Your task to perform on an android device: check battery use Image 0: 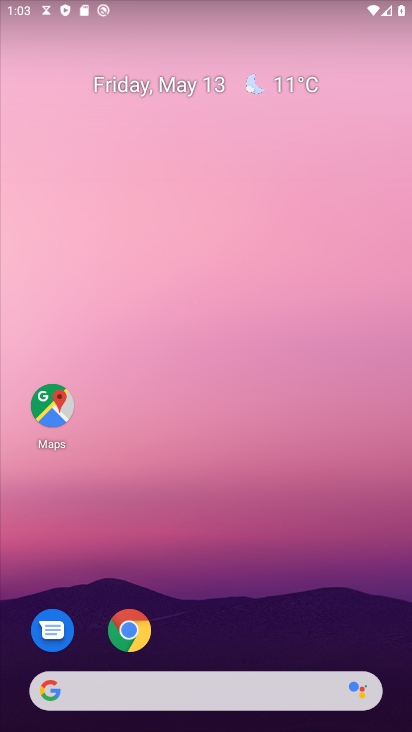
Step 0: drag from (233, 690) to (245, 186)
Your task to perform on an android device: check battery use Image 1: 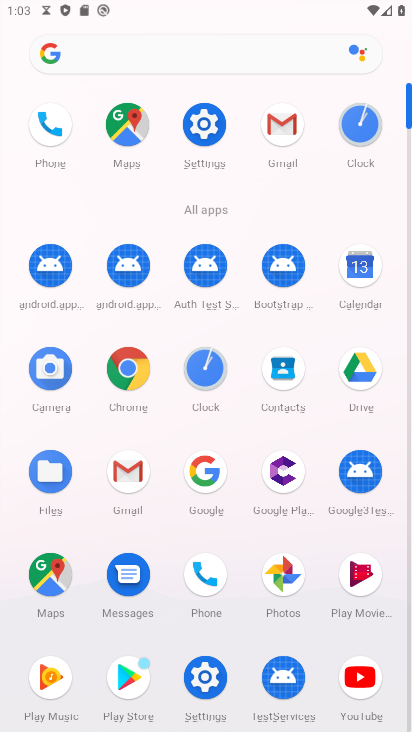
Step 1: click (213, 139)
Your task to perform on an android device: check battery use Image 2: 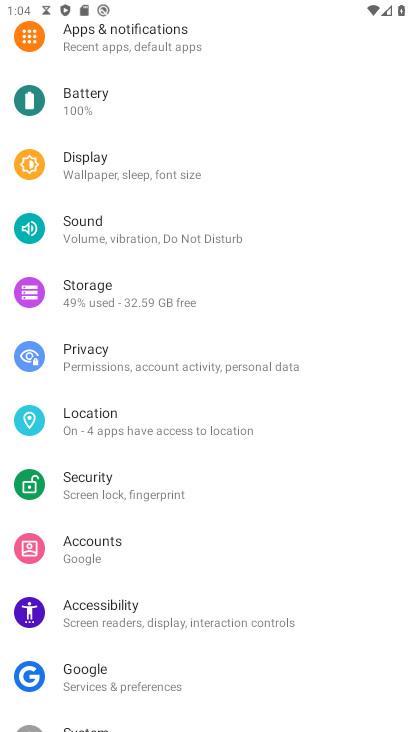
Step 2: click (77, 103)
Your task to perform on an android device: check battery use Image 3: 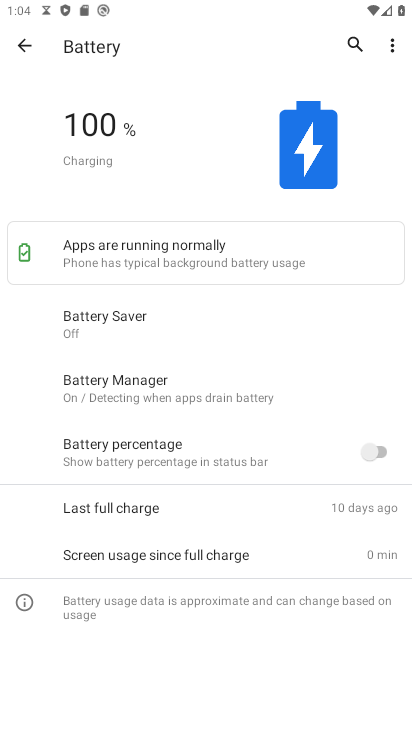
Step 3: click (380, 41)
Your task to perform on an android device: check battery use Image 4: 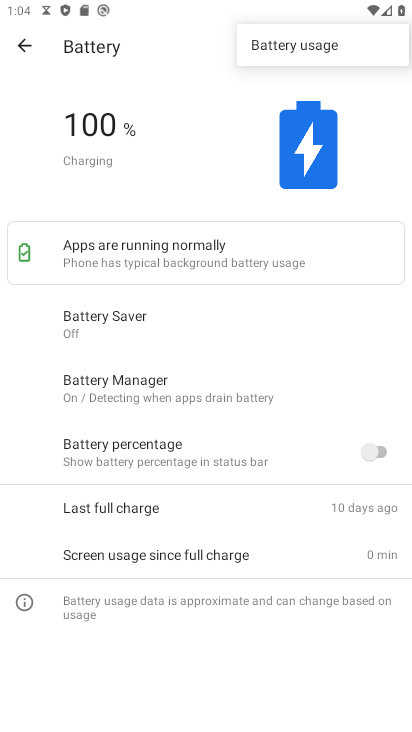
Step 4: click (292, 39)
Your task to perform on an android device: check battery use Image 5: 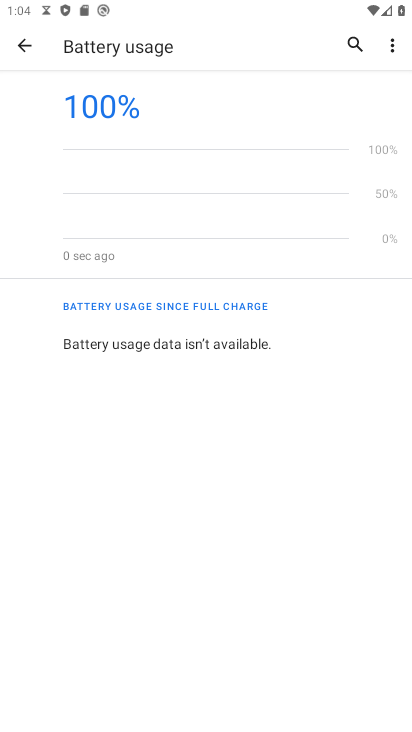
Step 5: task complete